Your task to perform on an android device: install app "Instagram" Image 0: 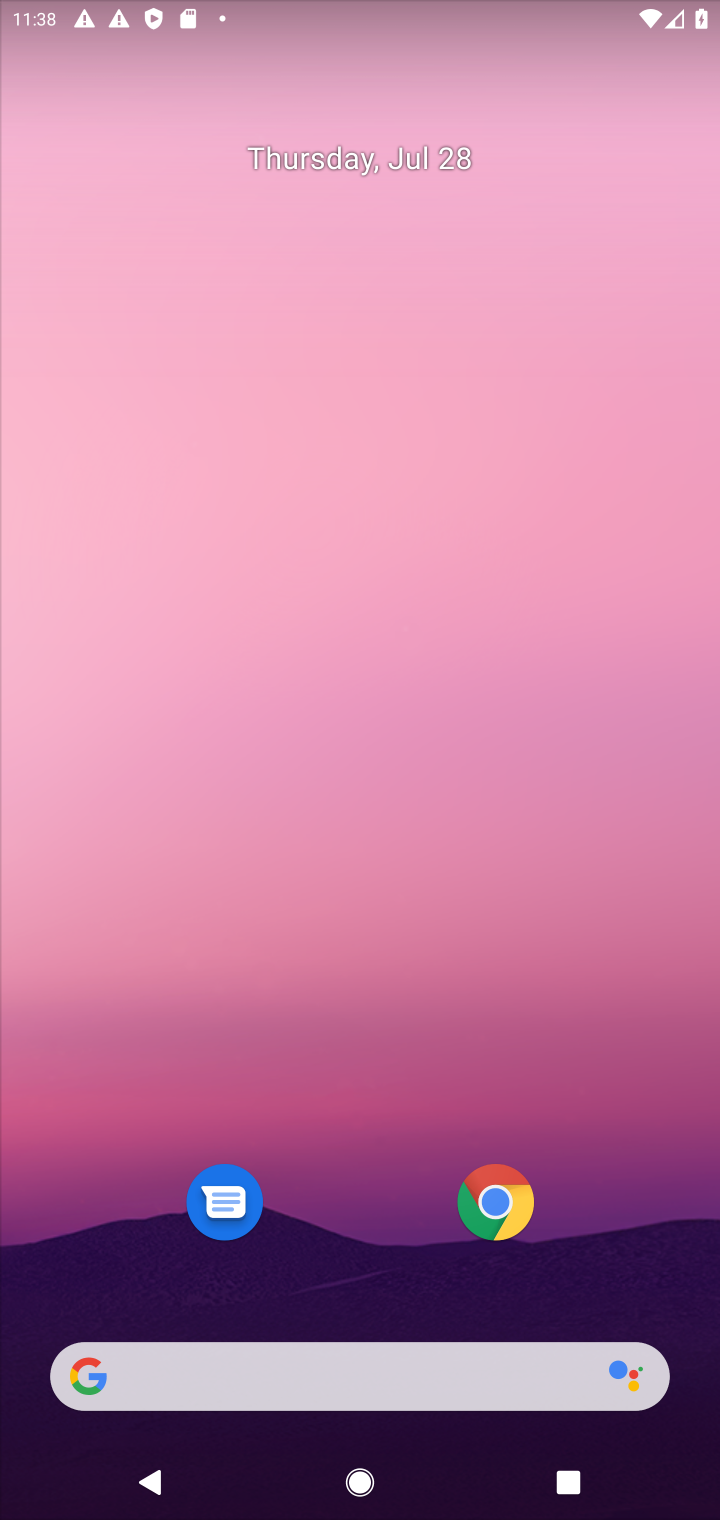
Step 0: click (487, 1221)
Your task to perform on an android device: install app "Instagram" Image 1: 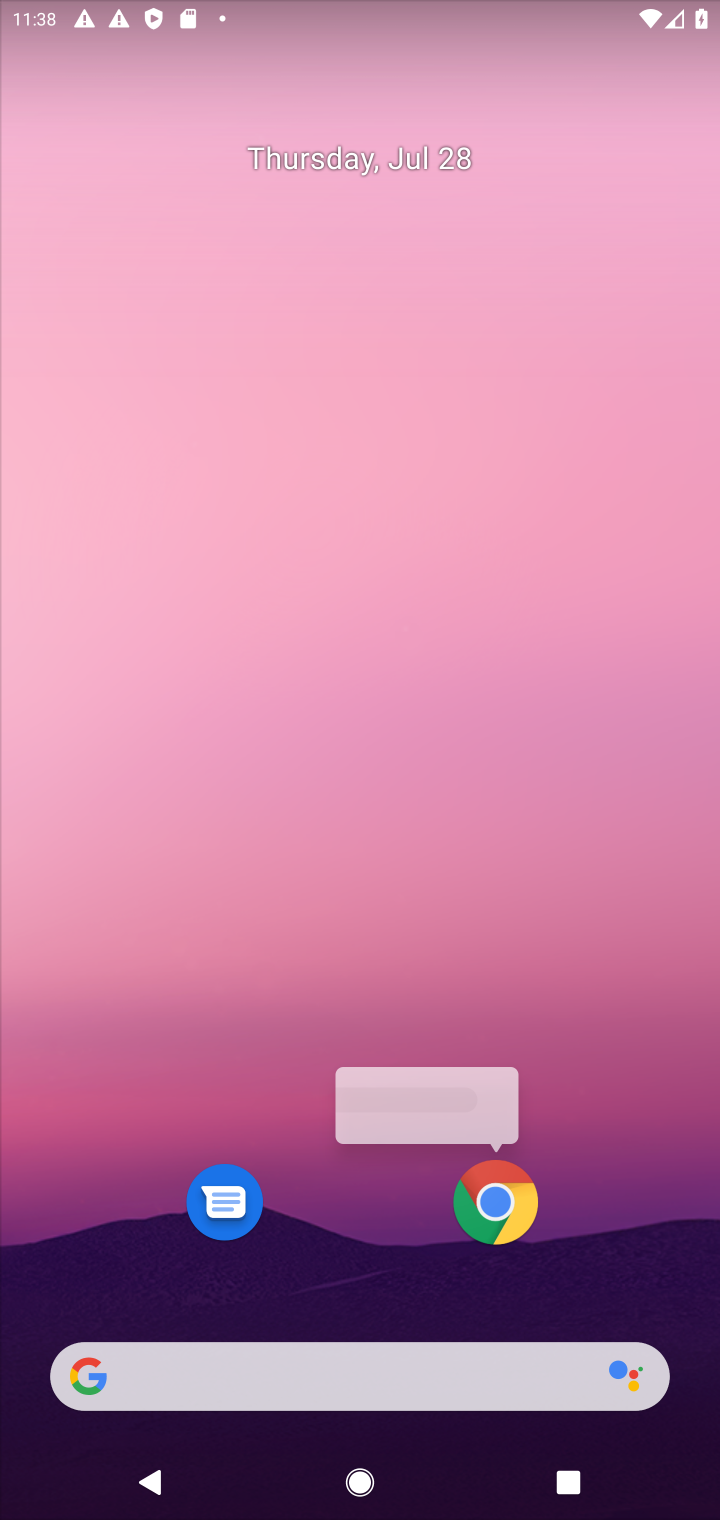
Step 1: drag from (237, 1314) to (342, 302)
Your task to perform on an android device: install app "Instagram" Image 2: 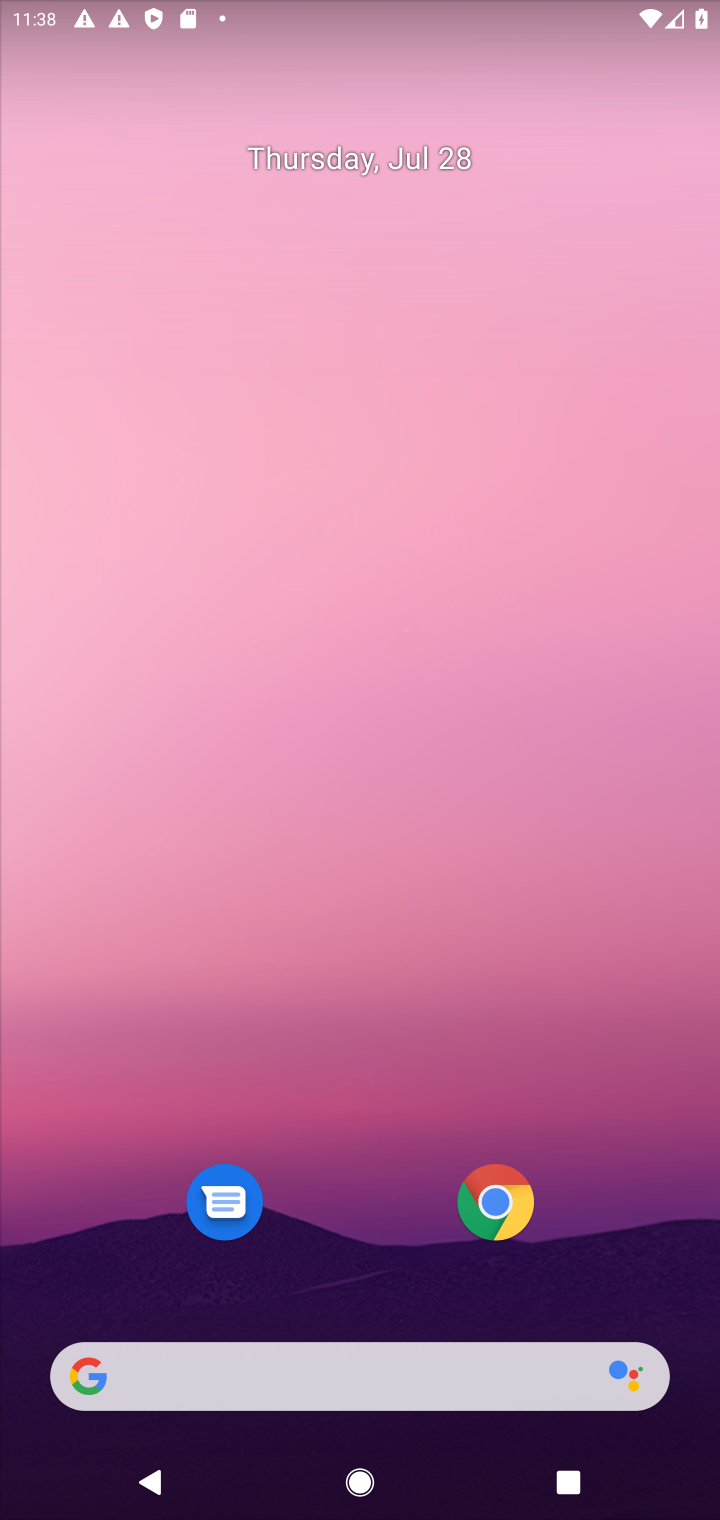
Step 2: drag from (173, 871) to (390, 21)
Your task to perform on an android device: install app "Instagram" Image 3: 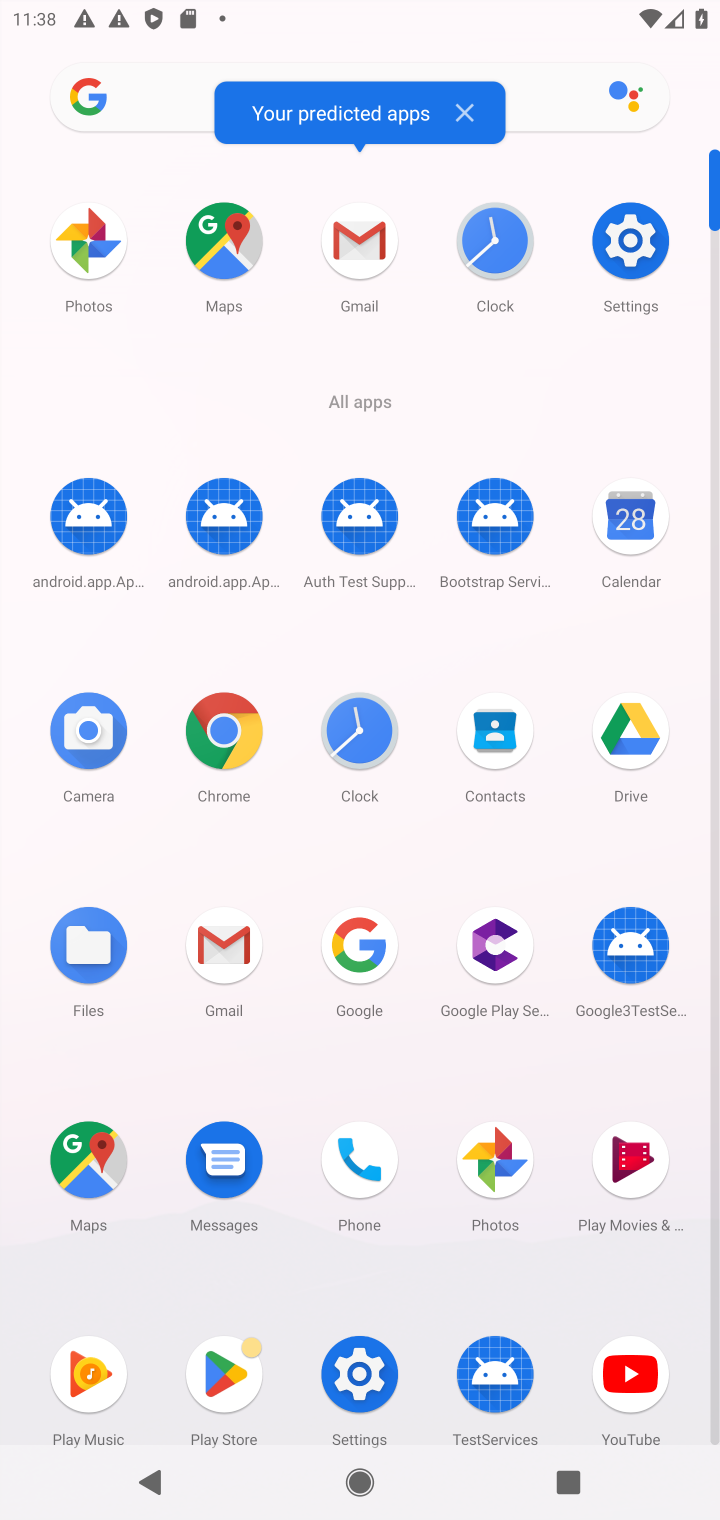
Step 3: click (258, 1372)
Your task to perform on an android device: install app "Instagram" Image 4: 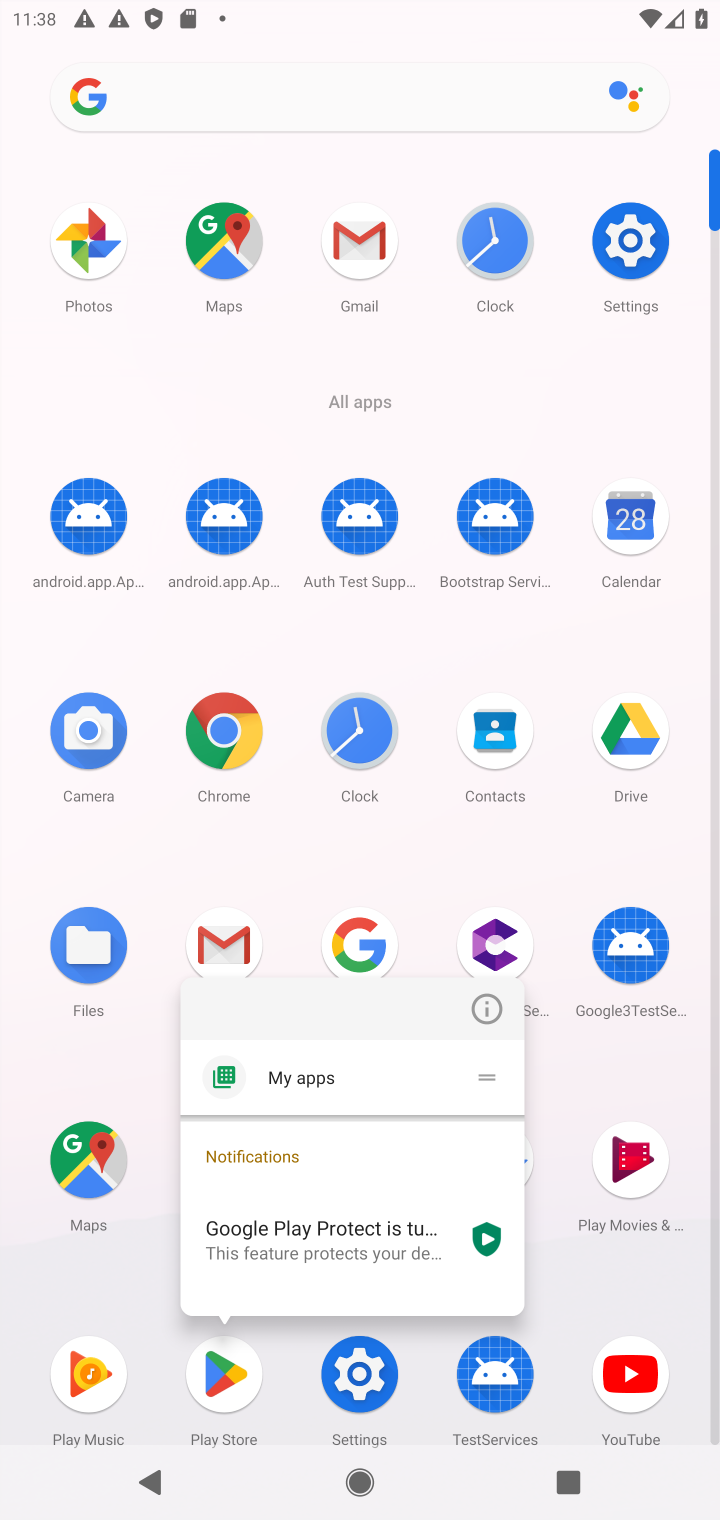
Step 4: click (258, 1372)
Your task to perform on an android device: install app "Instagram" Image 5: 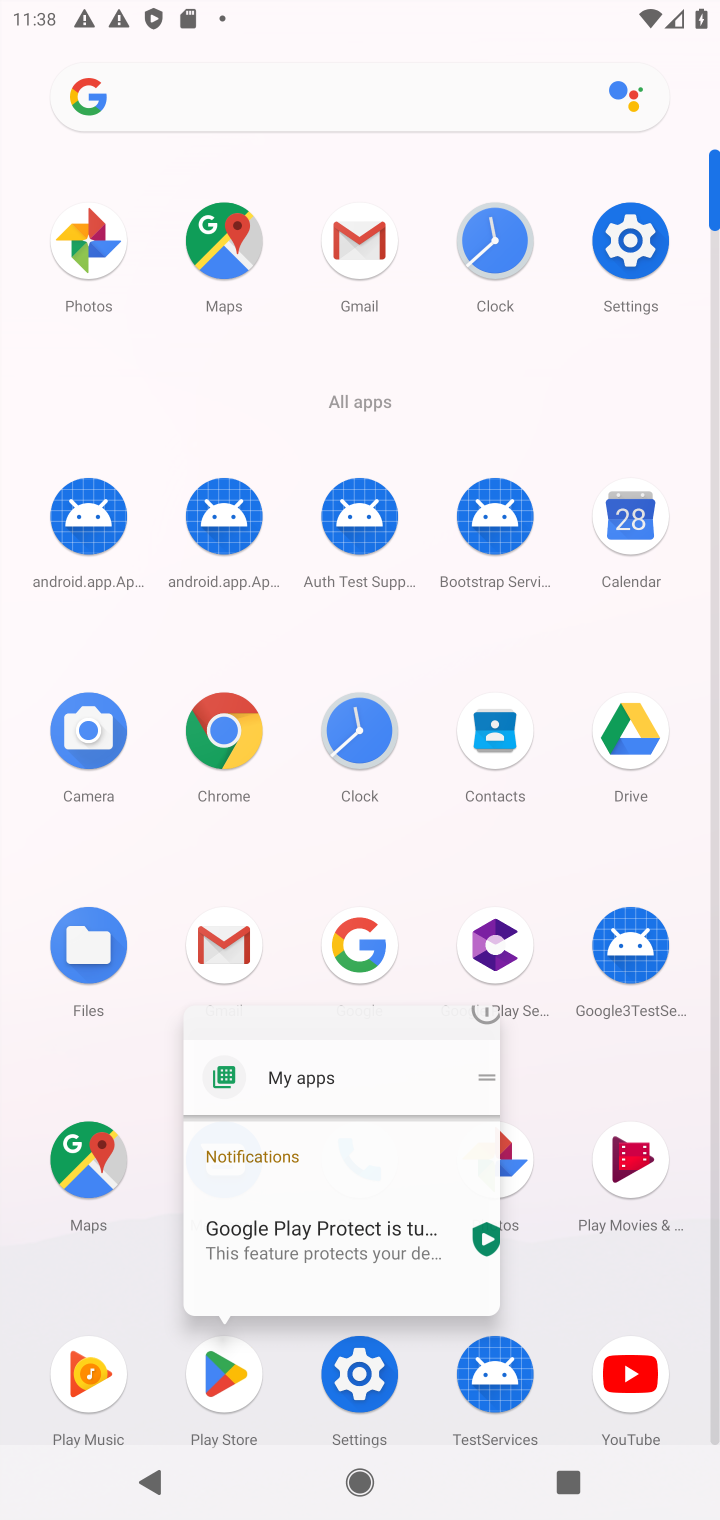
Step 5: click (258, 1372)
Your task to perform on an android device: install app "Instagram" Image 6: 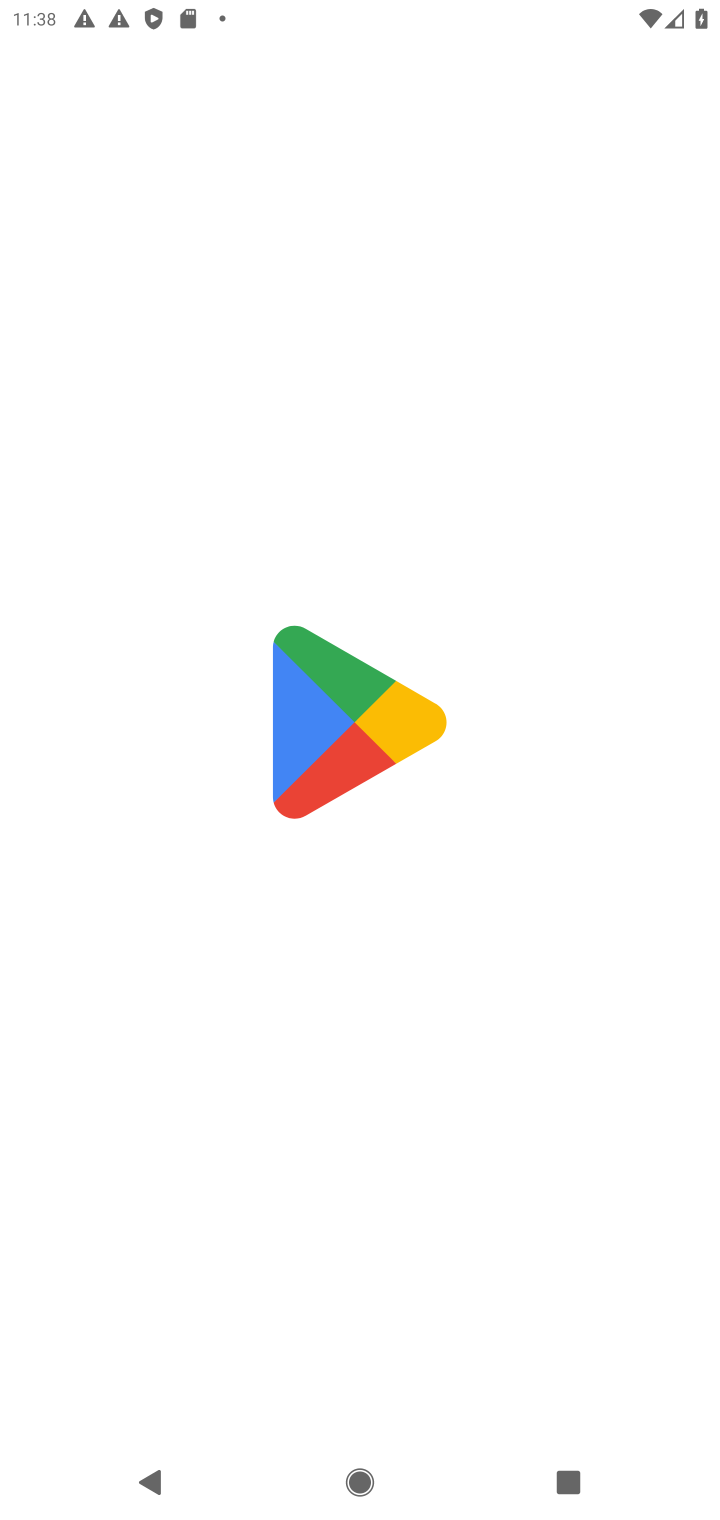
Step 6: click (201, 1396)
Your task to perform on an android device: install app "Instagram" Image 7: 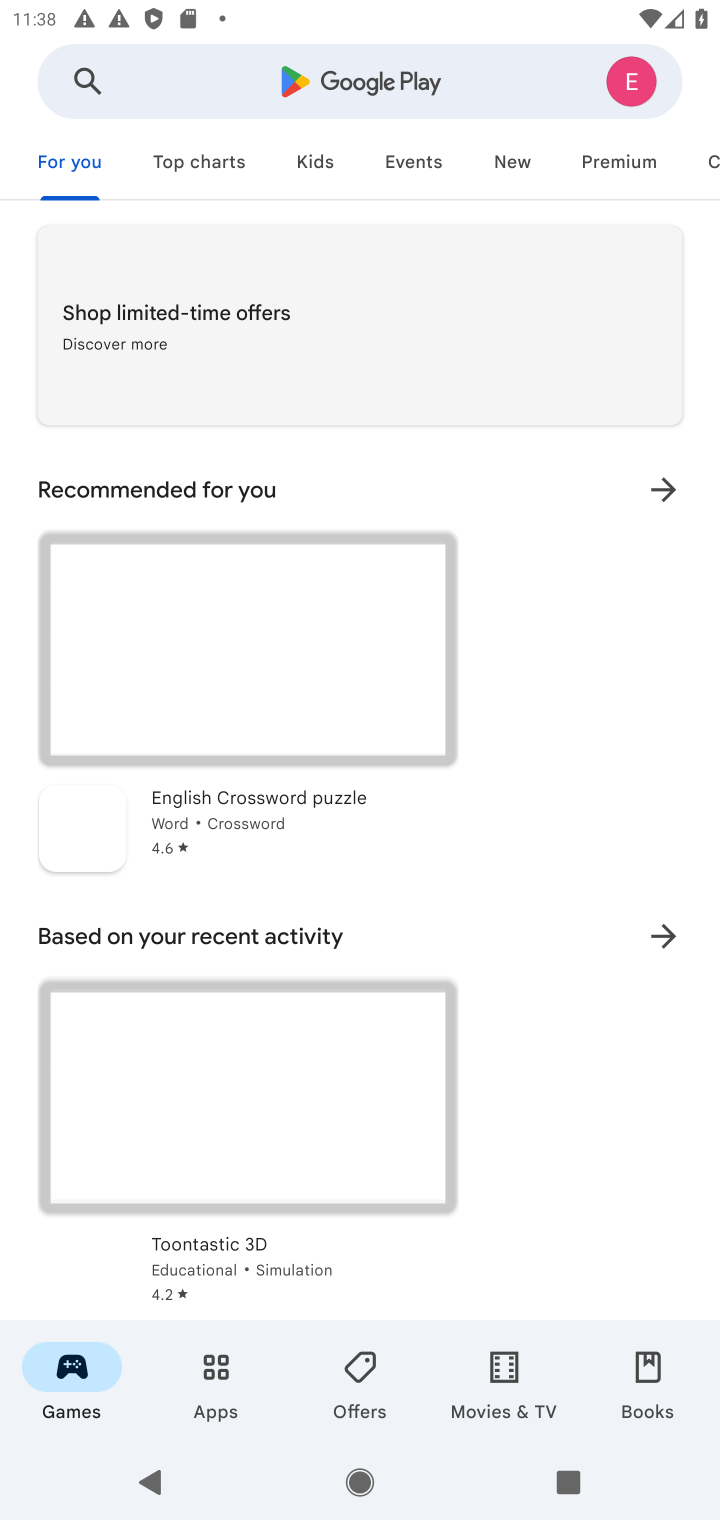
Step 7: click (418, 71)
Your task to perform on an android device: install app "Instagram" Image 8: 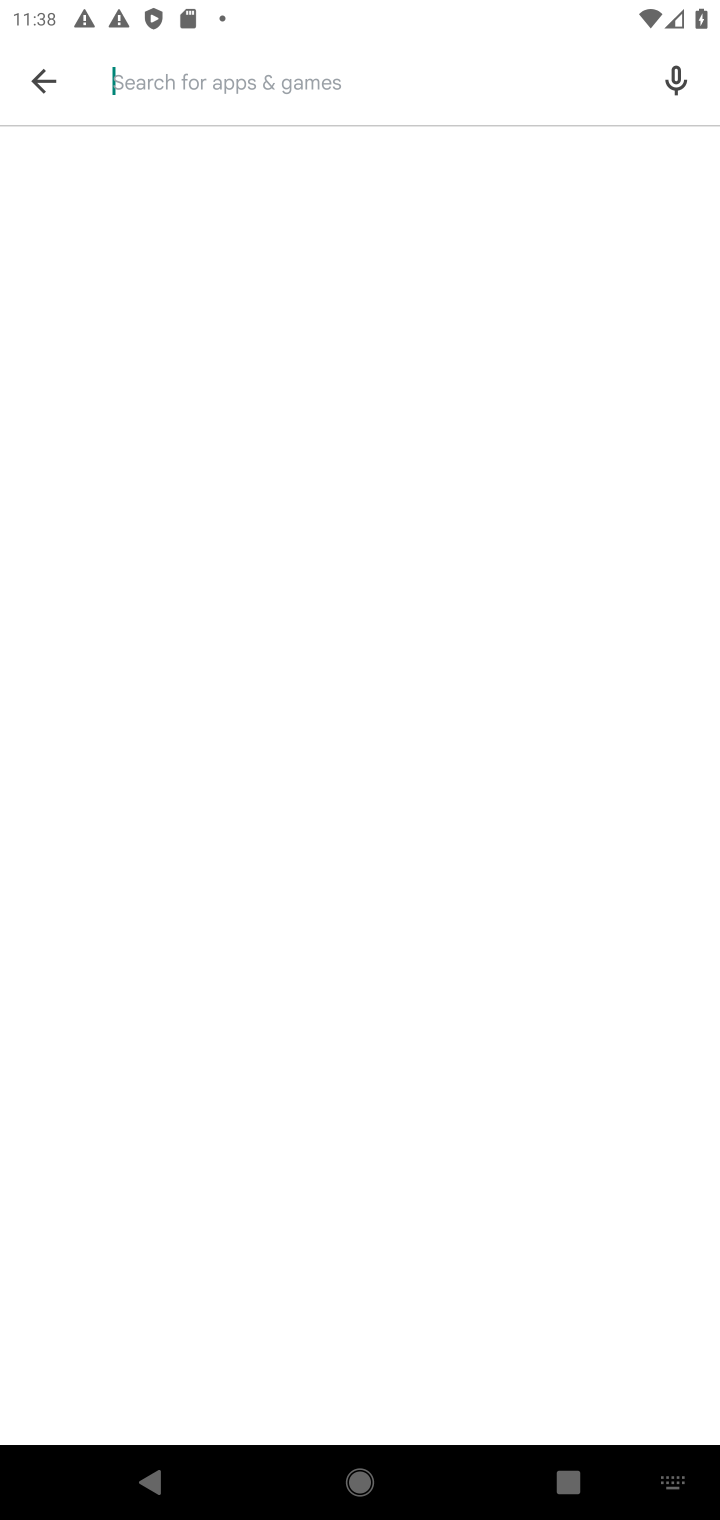
Step 8: type "Instagram"
Your task to perform on an android device: install app "Instagram" Image 9: 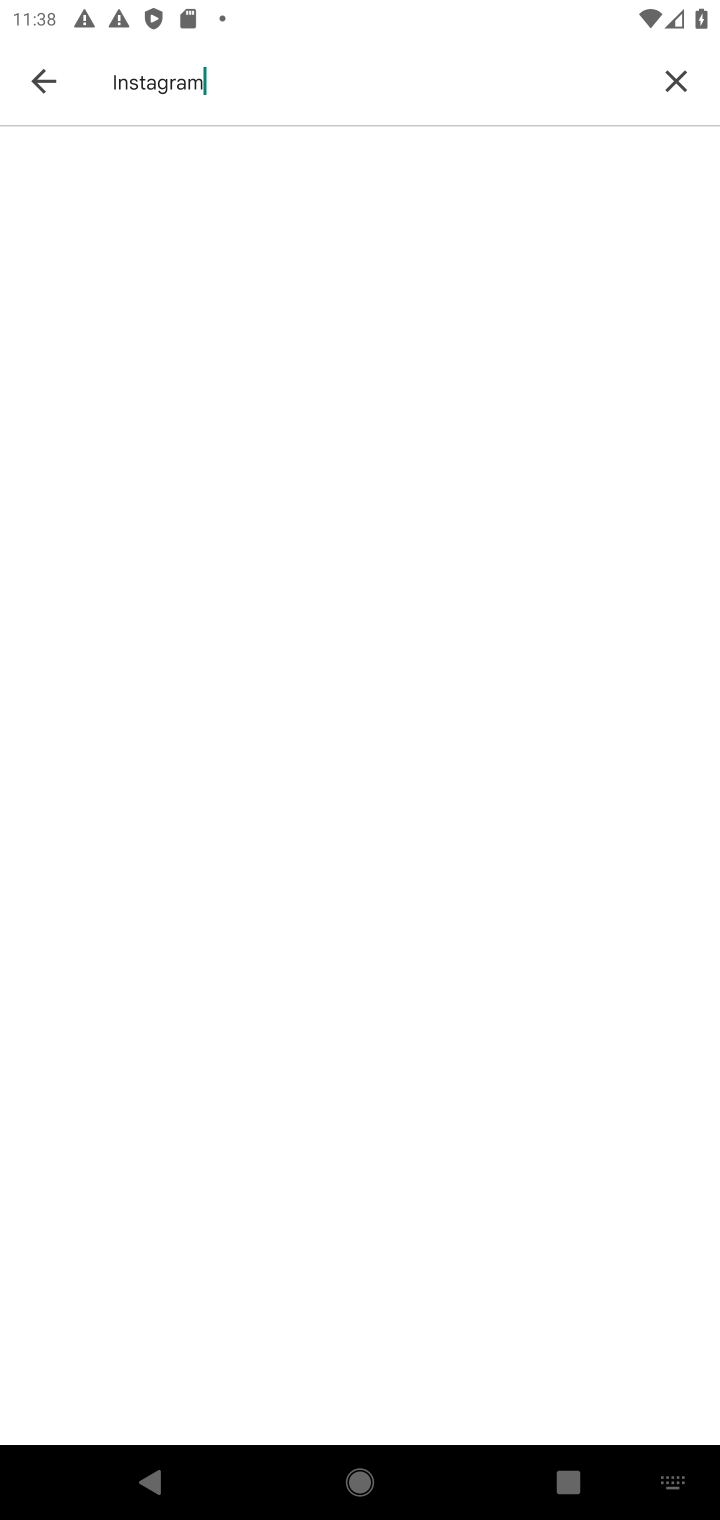
Step 9: type ""
Your task to perform on an android device: install app "Instagram" Image 10: 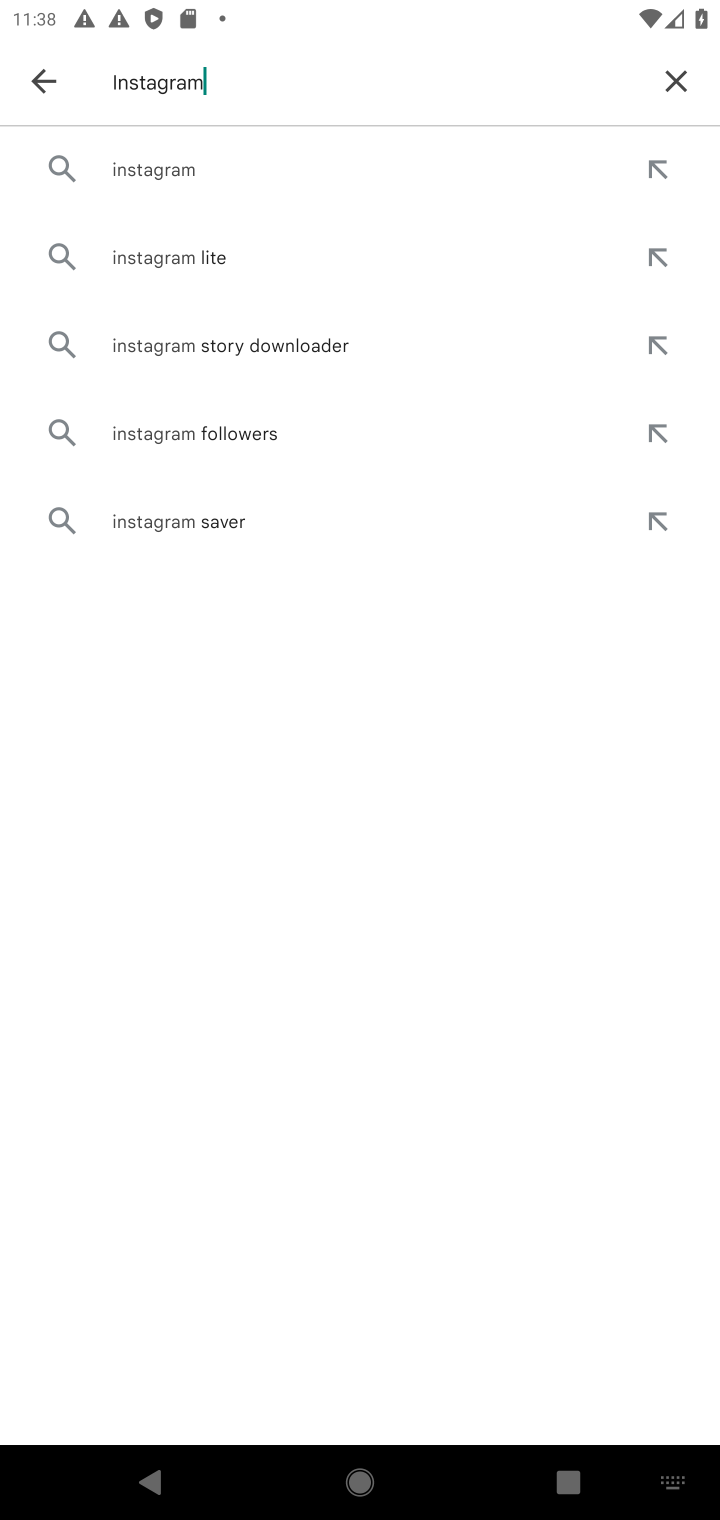
Step 10: click (180, 180)
Your task to perform on an android device: install app "Instagram" Image 11: 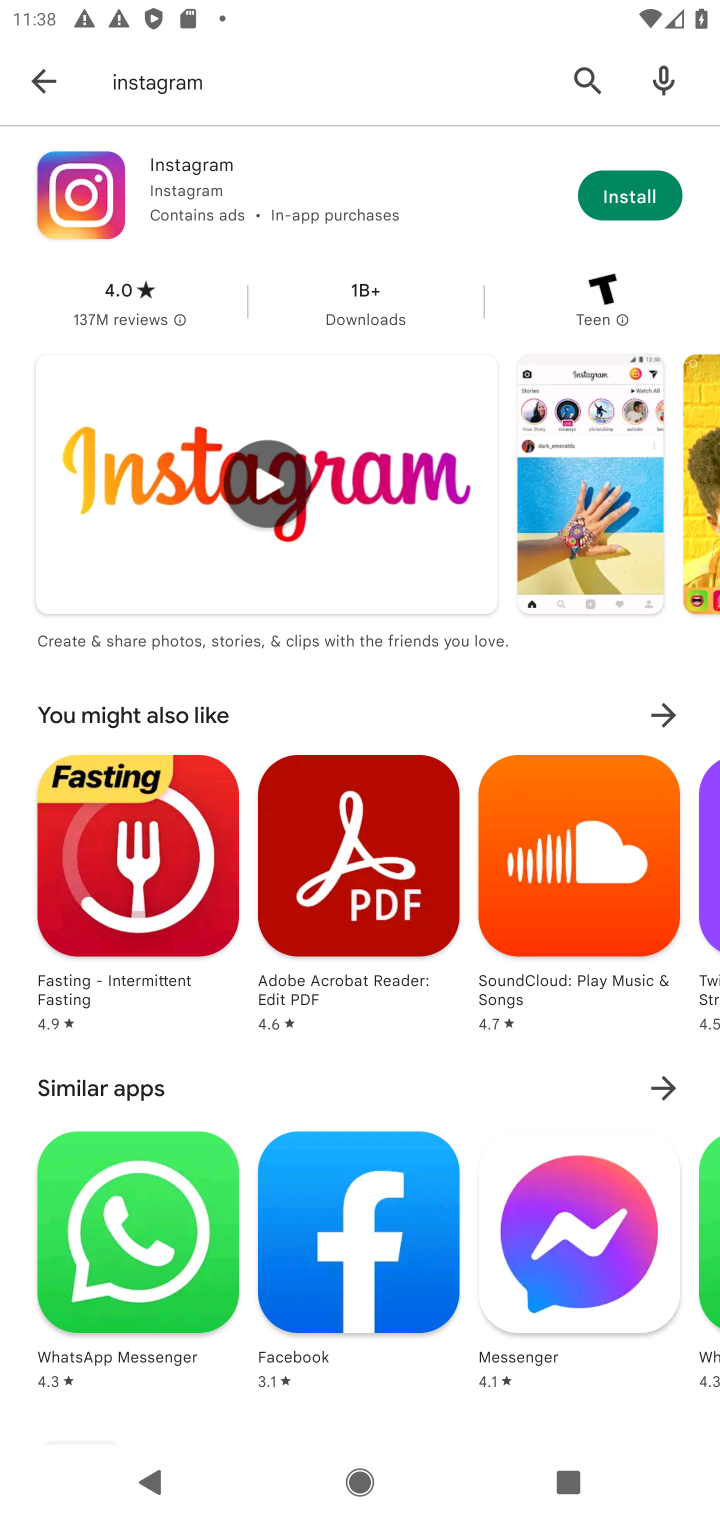
Step 11: click (621, 198)
Your task to perform on an android device: install app "Instagram" Image 12: 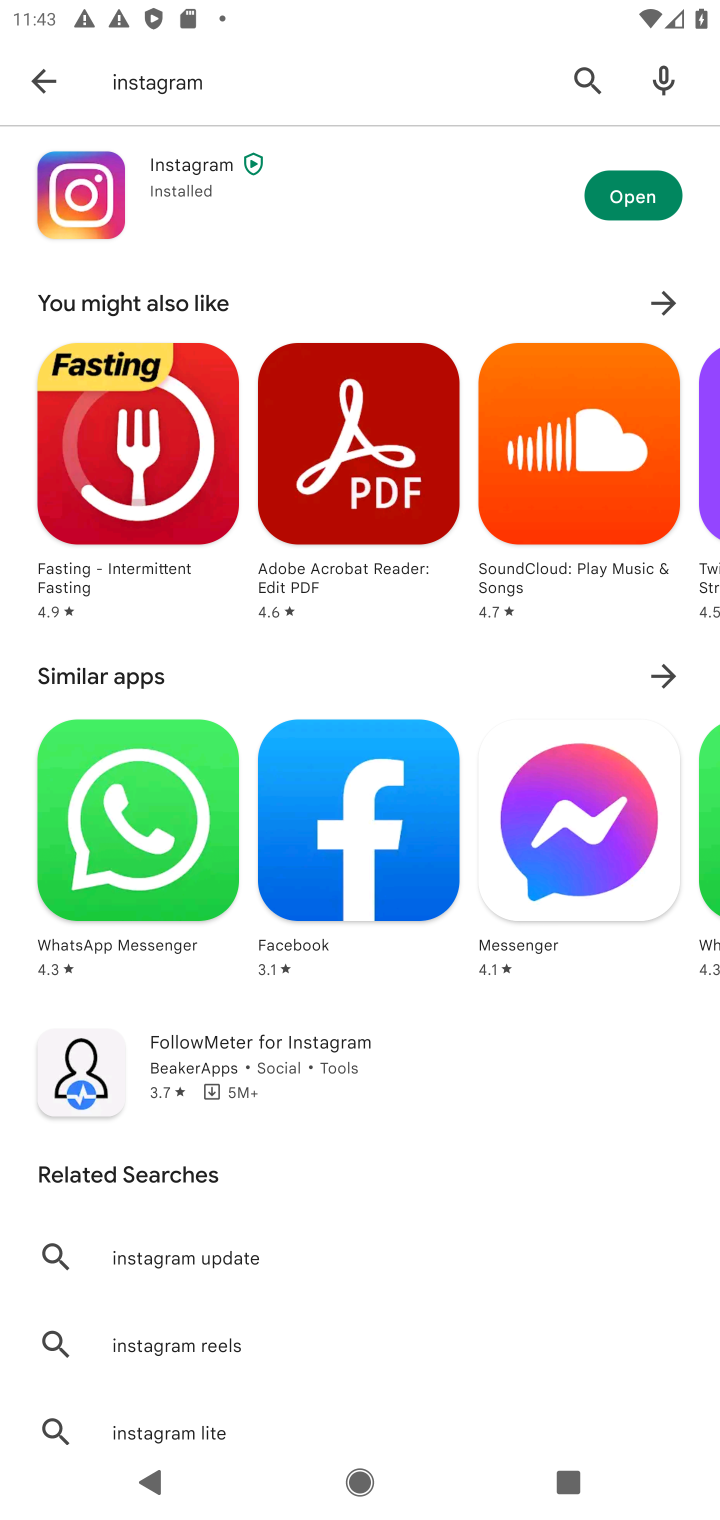
Step 12: task complete